Your task to perform on an android device: Is it going to rain today? Image 0: 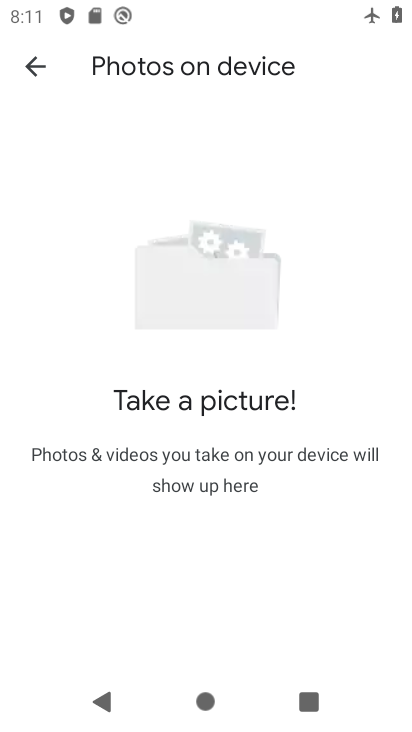
Step 0: press home button
Your task to perform on an android device: Is it going to rain today? Image 1: 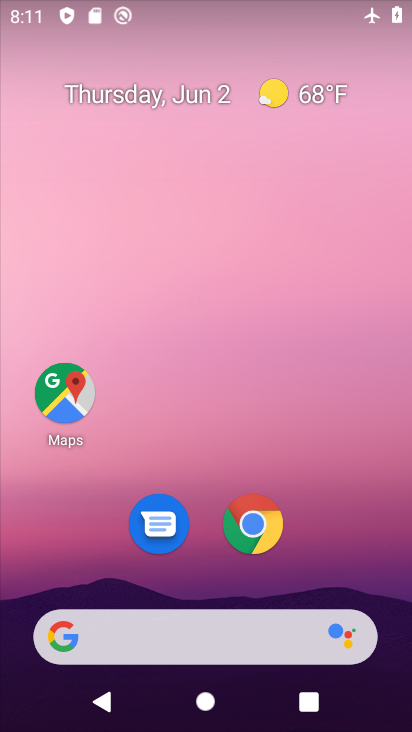
Step 1: click (277, 86)
Your task to perform on an android device: Is it going to rain today? Image 2: 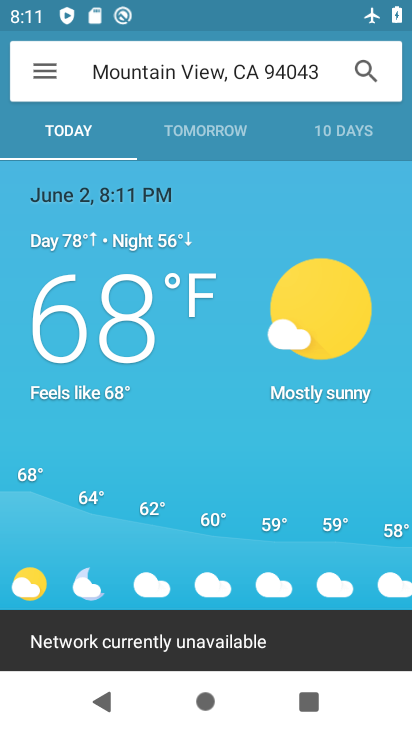
Step 2: task complete